Your task to perform on an android device: toggle pop-ups in chrome Image 0: 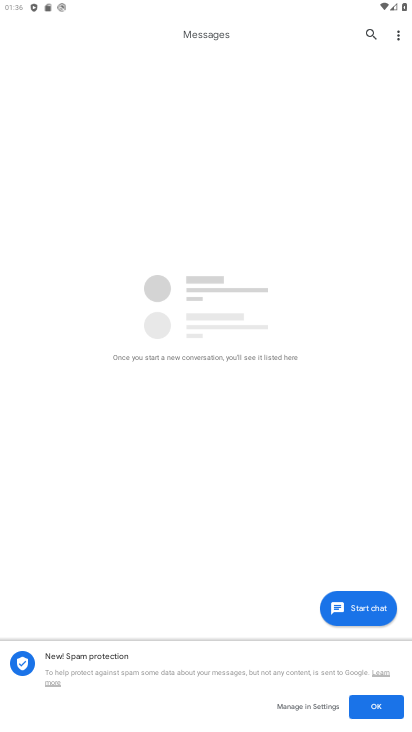
Step 0: press home button
Your task to perform on an android device: toggle pop-ups in chrome Image 1: 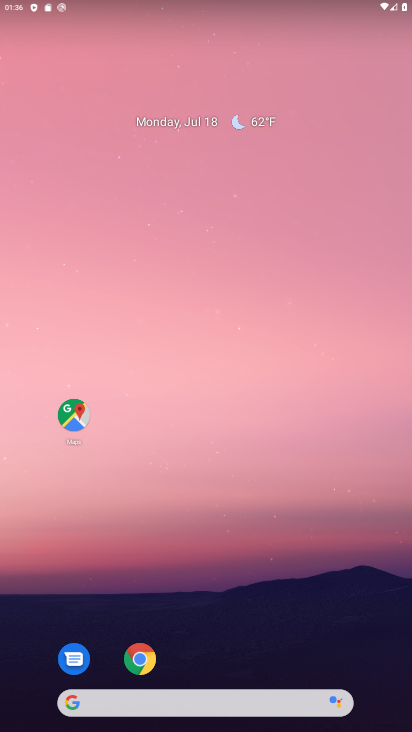
Step 1: drag from (303, 616) to (289, 110)
Your task to perform on an android device: toggle pop-ups in chrome Image 2: 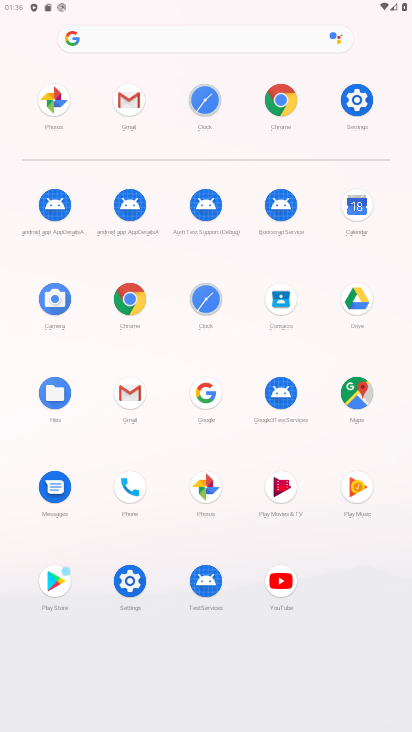
Step 2: click (132, 300)
Your task to perform on an android device: toggle pop-ups in chrome Image 3: 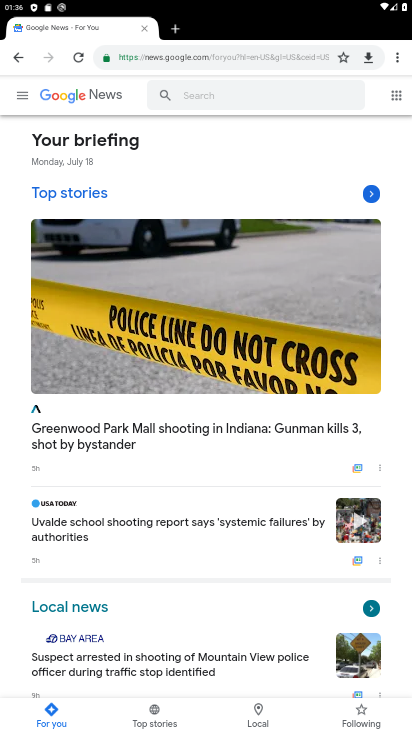
Step 3: drag from (398, 55) to (291, 383)
Your task to perform on an android device: toggle pop-ups in chrome Image 4: 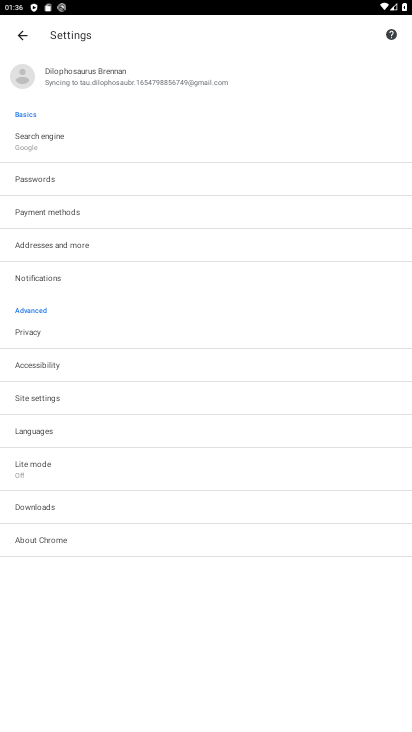
Step 4: click (66, 396)
Your task to perform on an android device: toggle pop-ups in chrome Image 5: 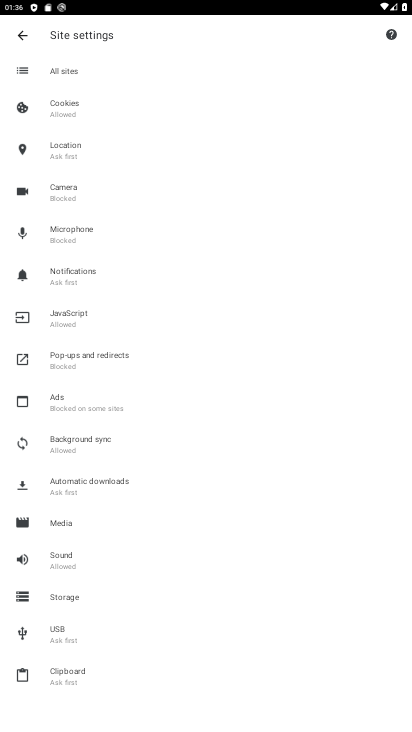
Step 5: click (98, 360)
Your task to perform on an android device: toggle pop-ups in chrome Image 6: 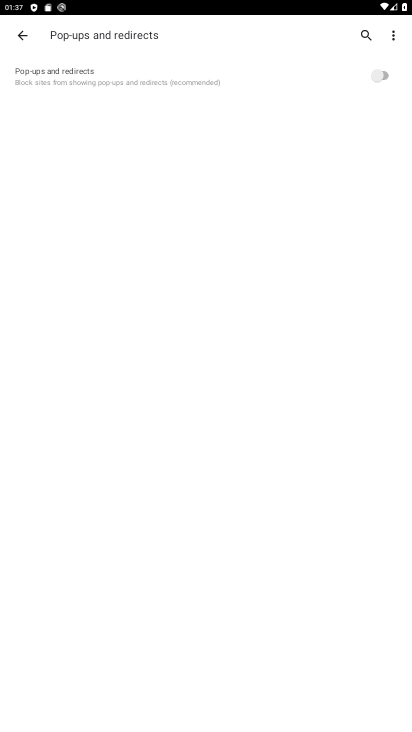
Step 6: click (368, 77)
Your task to perform on an android device: toggle pop-ups in chrome Image 7: 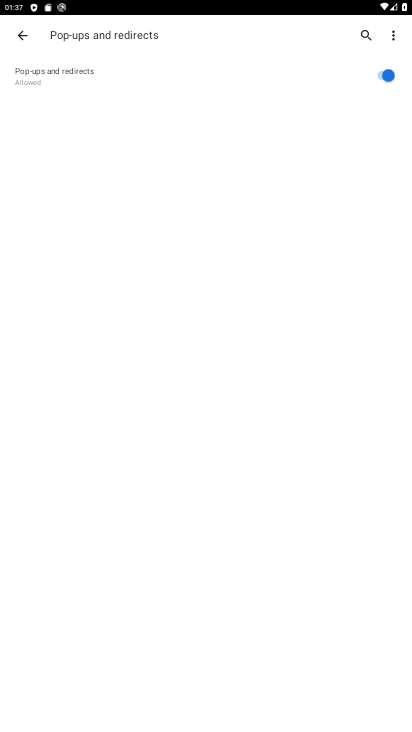
Step 7: task complete